Your task to perform on an android device: move an email to a new category in the gmail app Image 0: 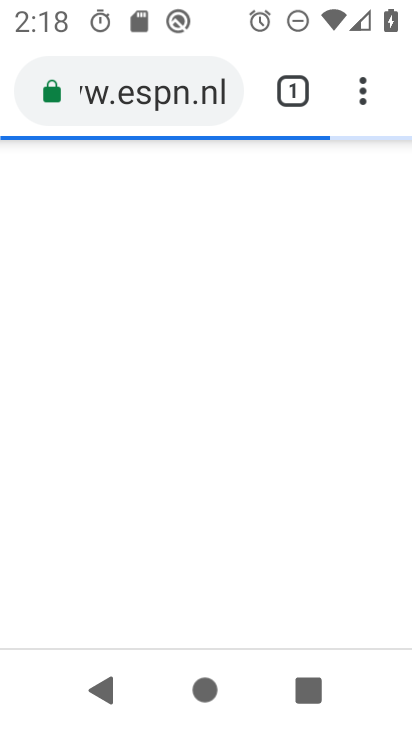
Step 0: press home button
Your task to perform on an android device: move an email to a new category in the gmail app Image 1: 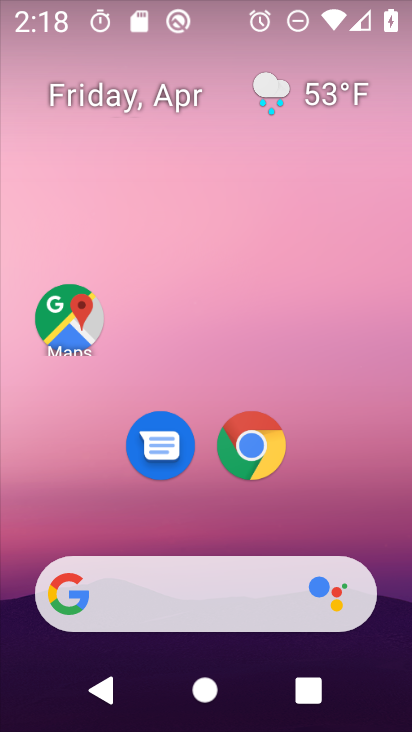
Step 1: drag from (367, 516) to (382, 172)
Your task to perform on an android device: move an email to a new category in the gmail app Image 2: 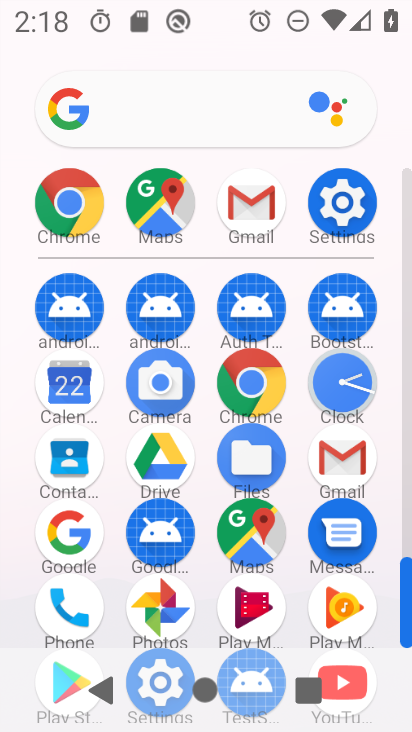
Step 2: click (352, 456)
Your task to perform on an android device: move an email to a new category in the gmail app Image 3: 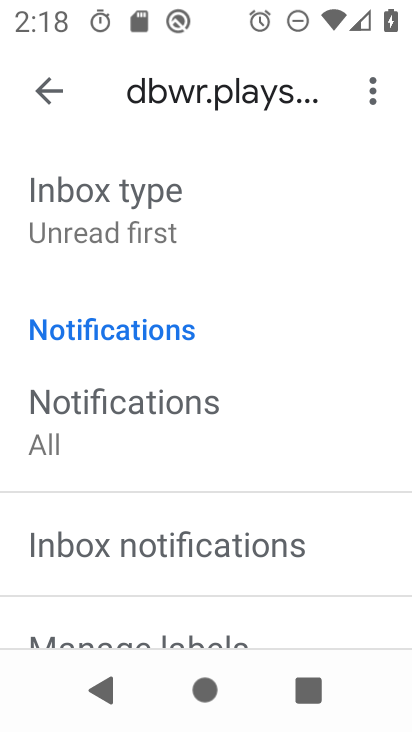
Step 3: drag from (343, 579) to (356, 482)
Your task to perform on an android device: move an email to a new category in the gmail app Image 4: 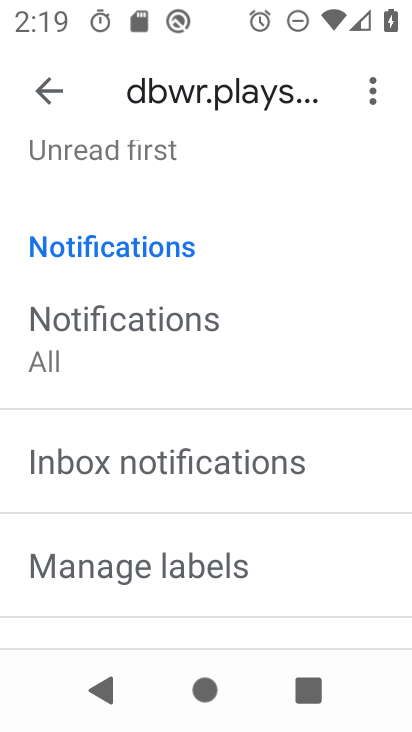
Step 4: click (42, 105)
Your task to perform on an android device: move an email to a new category in the gmail app Image 5: 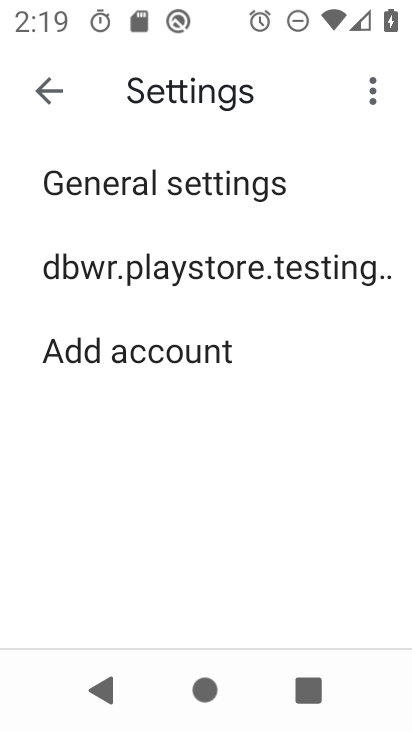
Step 5: click (50, 90)
Your task to perform on an android device: move an email to a new category in the gmail app Image 6: 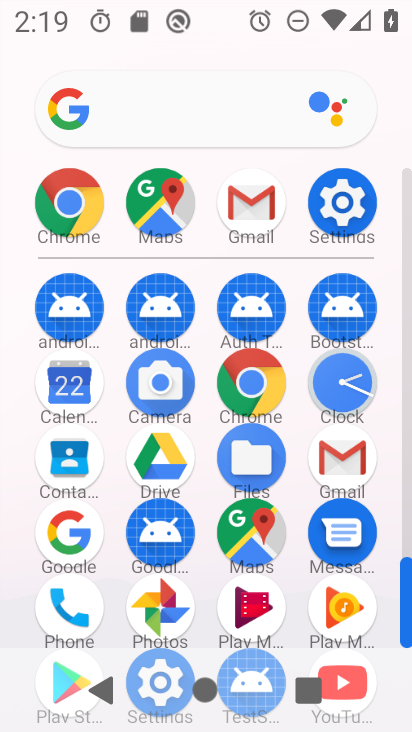
Step 6: click (254, 203)
Your task to perform on an android device: move an email to a new category in the gmail app Image 7: 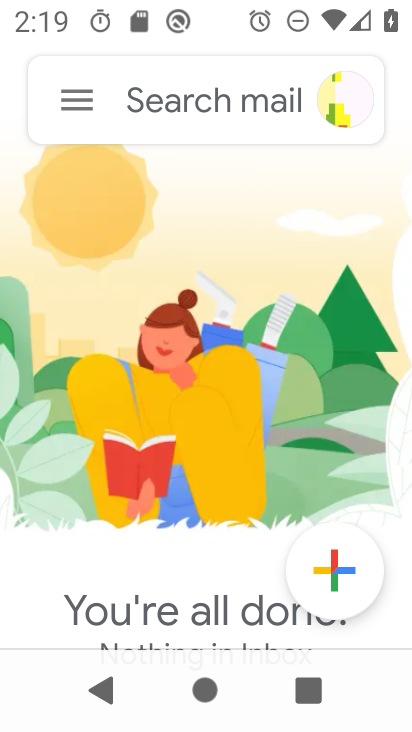
Step 7: task complete